Your task to perform on an android device: turn off data saver in the chrome app Image 0: 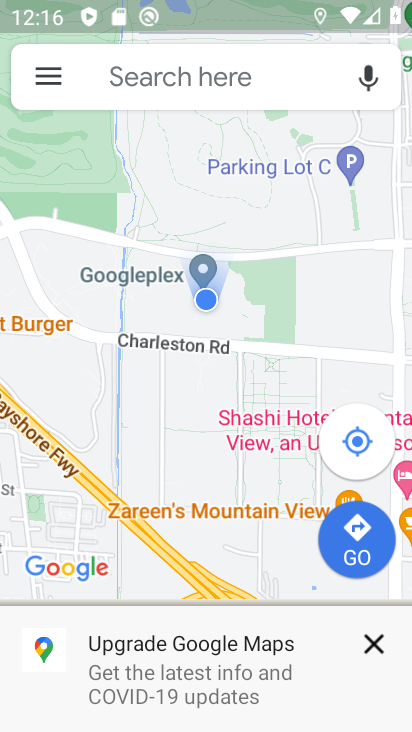
Step 0: press home button
Your task to perform on an android device: turn off data saver in the chrome app Image 1: 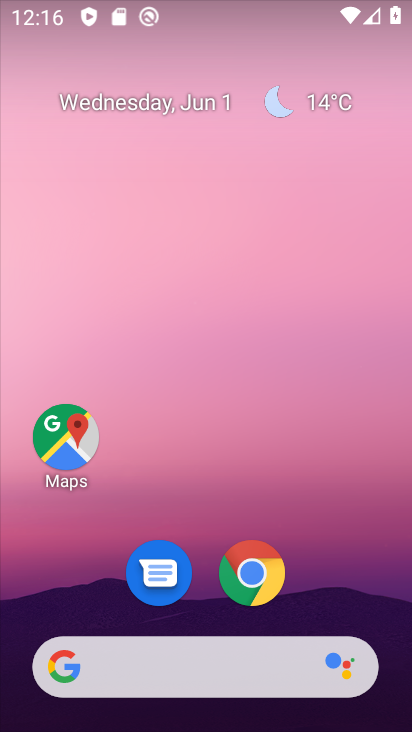
Step 1: click (256, 576)
Your task to perform on an android device: turn off data saver in the chrome app Image 2: 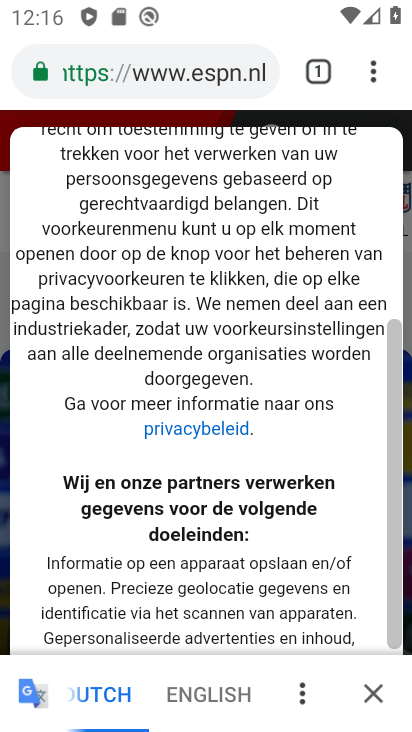
Step 2: drag from (365, 76) to (199, 583)
Your task to perform on an android device: turn off data saver in the chrome app Image 3: 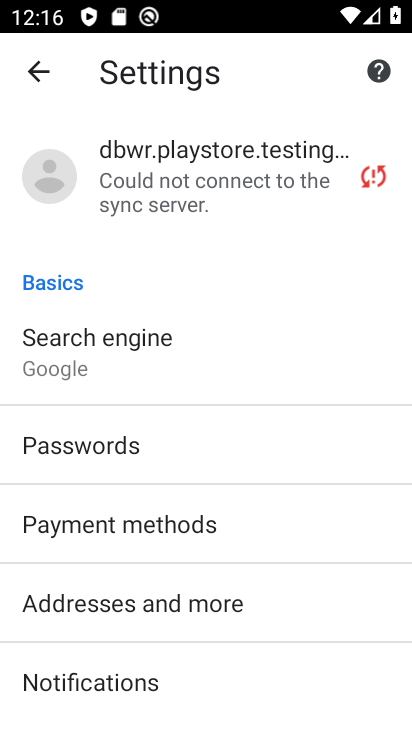
Step 3: drag from (204, 703) to (286, 321)
Your task to perform on an android device: turn off data saver in the chrome app Image 4: 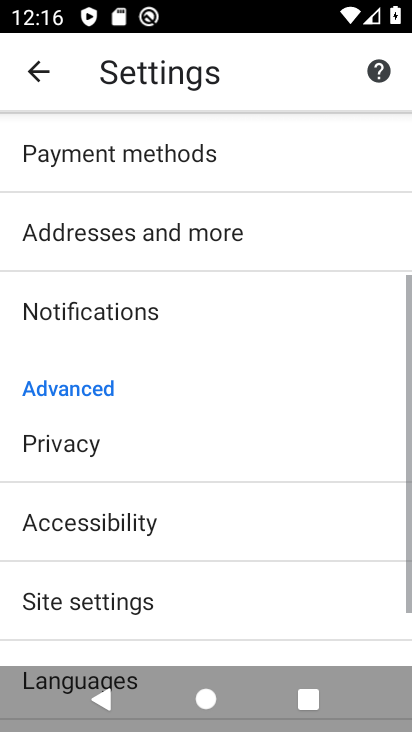
Step 4: drag from (207, 577) to (318, 150)
Your task to perform on an android device: turn off data saver in the chrome app Image 5: 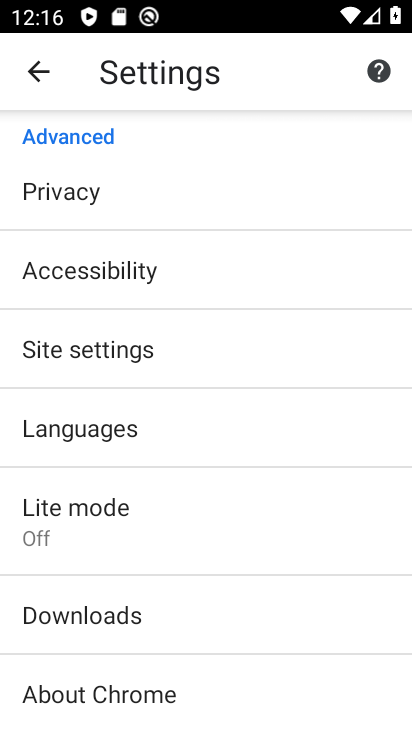
Step 5: click (148, 522)
Your task to perform on an android device: turn off data saver in the chrome app Image 6: 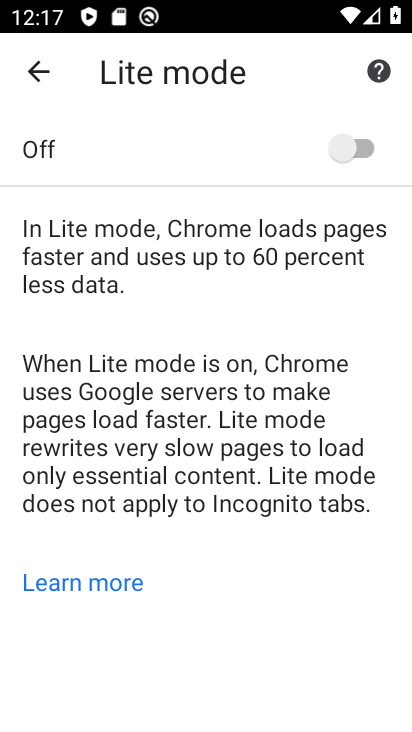
Step 6: task complete